Your task to perform on an android device: Go to sound settings Image 0: 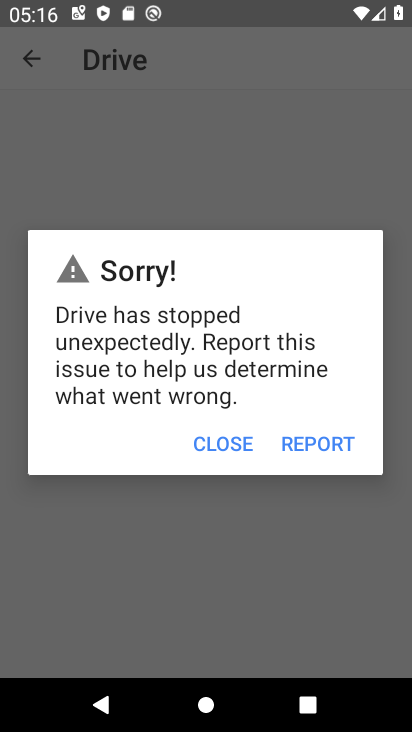
Step 0: press home button
Your task to perform on an android device: Go to sound settings Image 1: 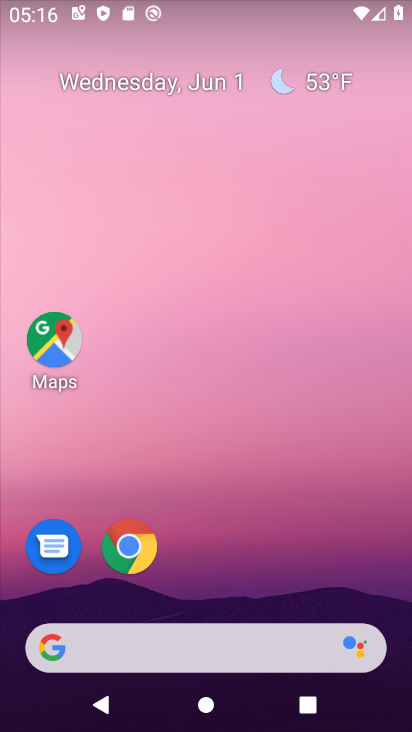
Step 1: drag from (258, 491) to (178, 121)
Your task to perform on an android device: Go to sound settings Image 2: 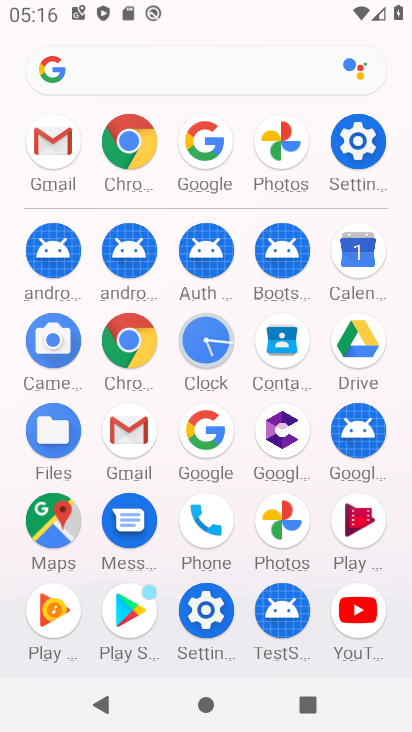
Step 2: click (356, 143)
Your task to perform on an android device: Go to sound settings Image 3: 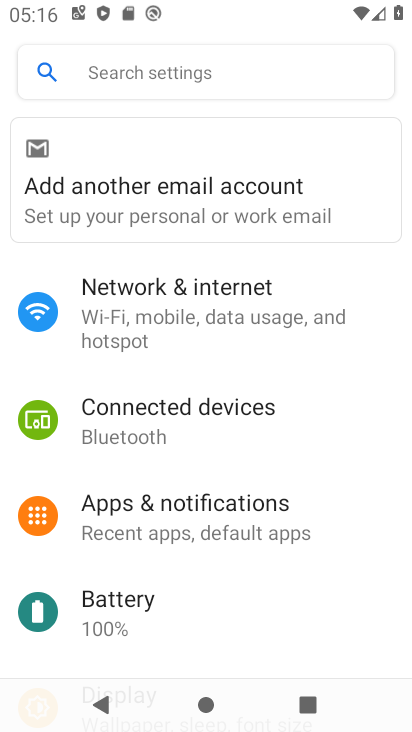
Step 3: drag from (242, 554) to (180, 291)
Your task to perform on an android device: Go to sound settings Image 4: 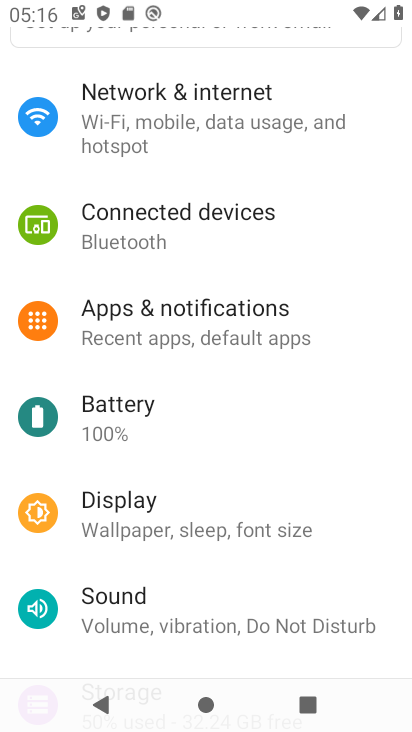
Step 4: click (108, 597)
Your task to perform on an android device: Go to sound settings Image 5: 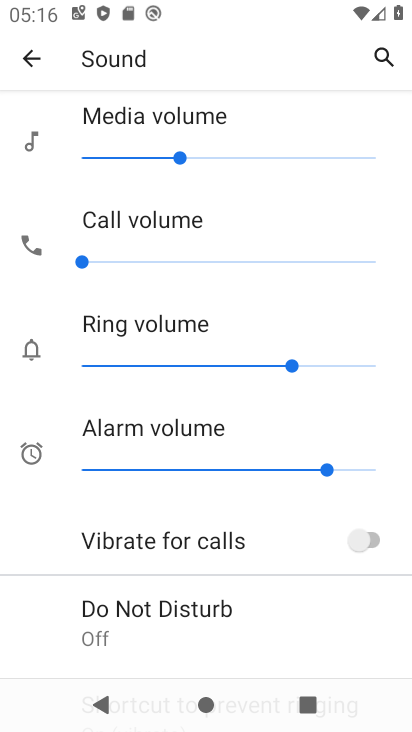
Step 5: task complete